Your task to perform on an android device: turn on the 24-hour format for clock Image 0: 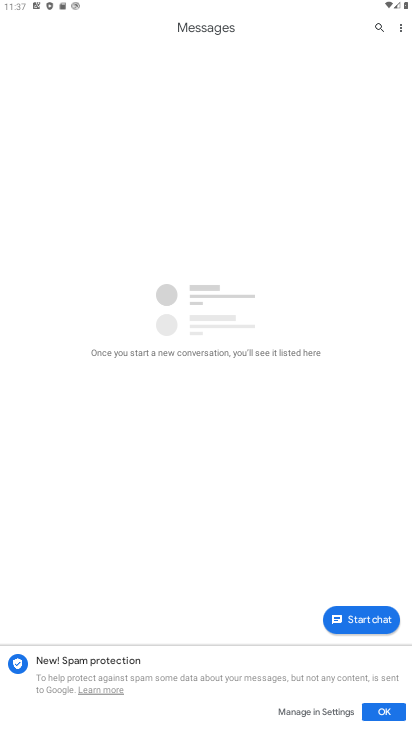
Step 0: press home button
Your task to perform on an android device: turn on the 24-hour format for clock Image 1: 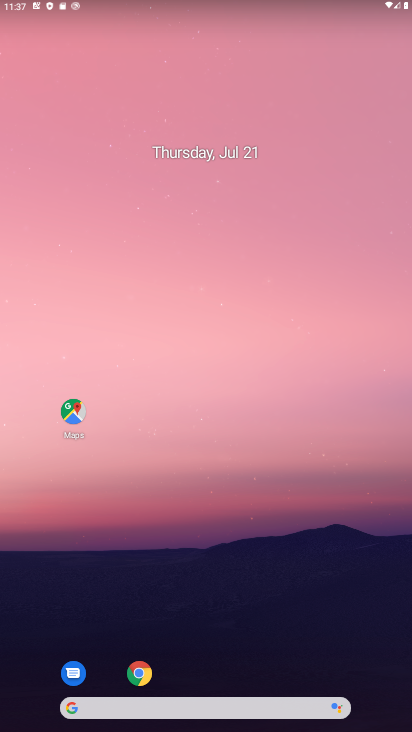
Step 1: drag from (223, 662) to (206, 238)
Your task to perform on an android device: turn on the 24-hour format for clock Image 2: 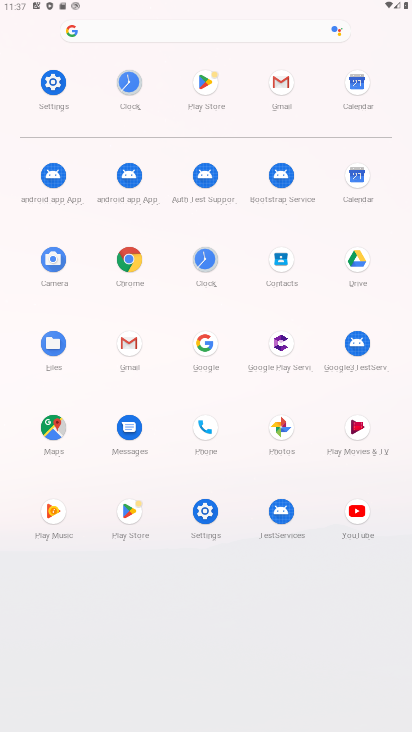
Step 2: click (139, 90)
Your task to perform on an android device: turn on the 24-hour format for clock Image 3: 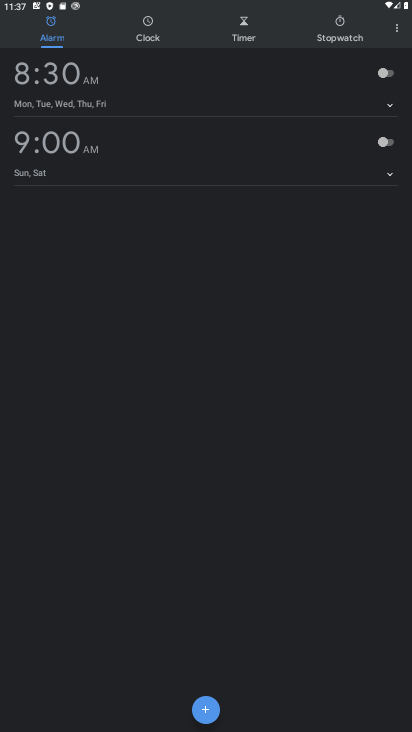
Step 3: click (392, 35)
Your task to perform on an android device: turn on the 24-hour format for clock Image 4: 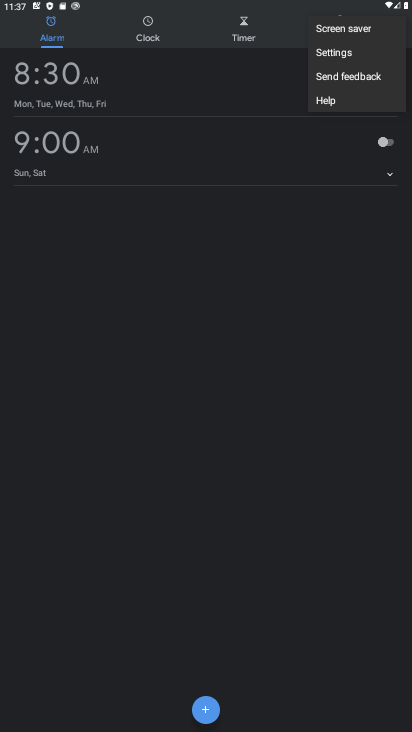
Step 4: click (367, 53)
Your task to perform on an android device: turn on the 24-hour format for clock Image 5: 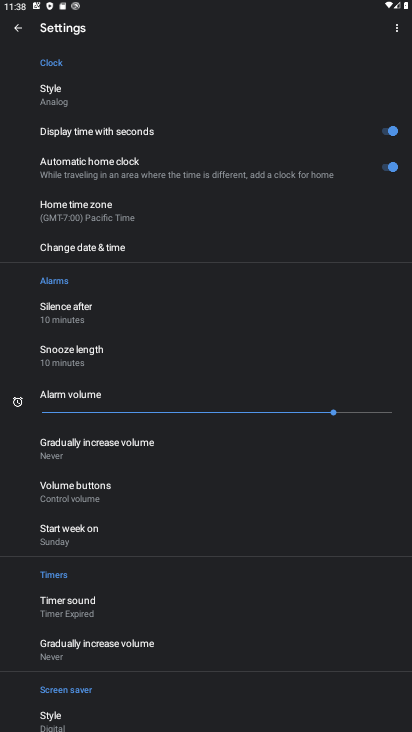
Step 5: click (117, 256)
Your task to perform on an android device: turn on the 24-hour format for clock Image 6: 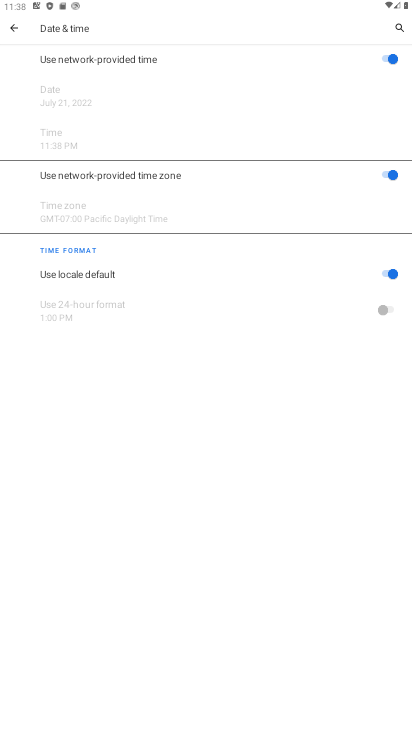
Step 6: click (376, 273)
Your task to perform on an android device: turn on the 24-hour format for clock Image 7: 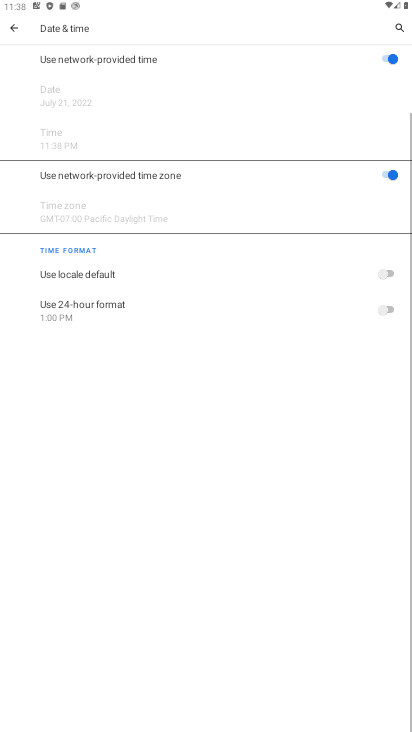
Step 7: click (391, 312)
Your task to perform on an android device: turn on the 24-hour format for clock Image 8: 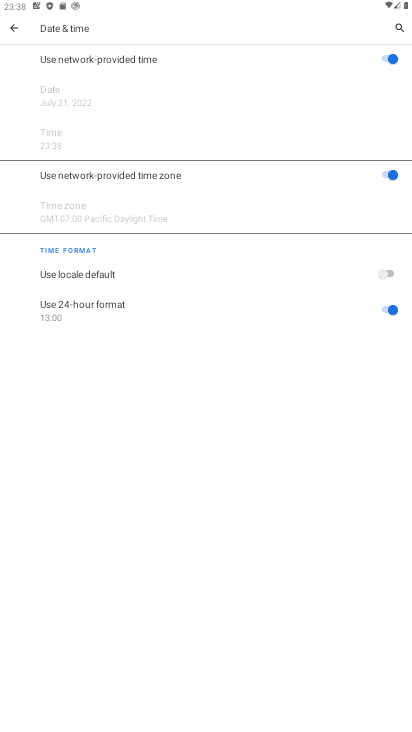
Step 8: task complete